Your task to perform on an android device: toggle translation in the chrome app Image 0: 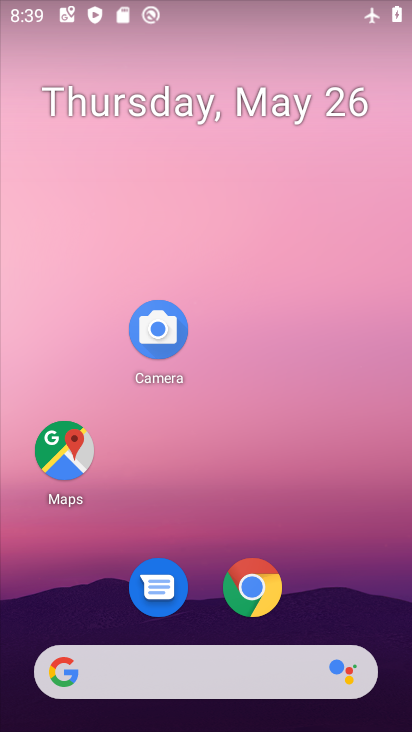
Step 0: click (252, 595)
Your task to perform on an android device: toggle translation in the chrome app Image 1: 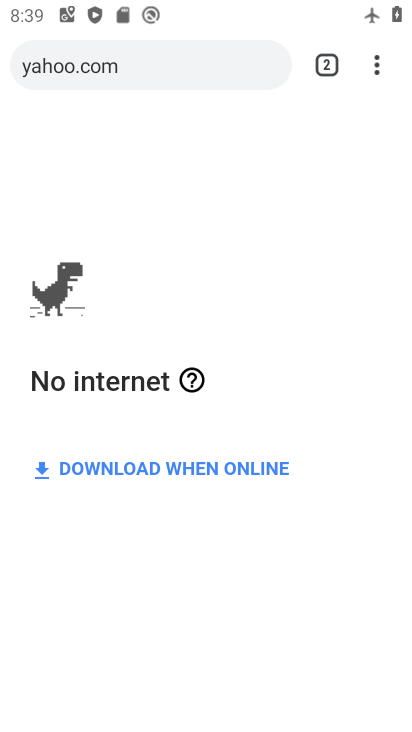
Step 1: drag from (372, 62) to (190, 644)
Your task to perform on an android device: toggle translation in the chrome app Image 2: 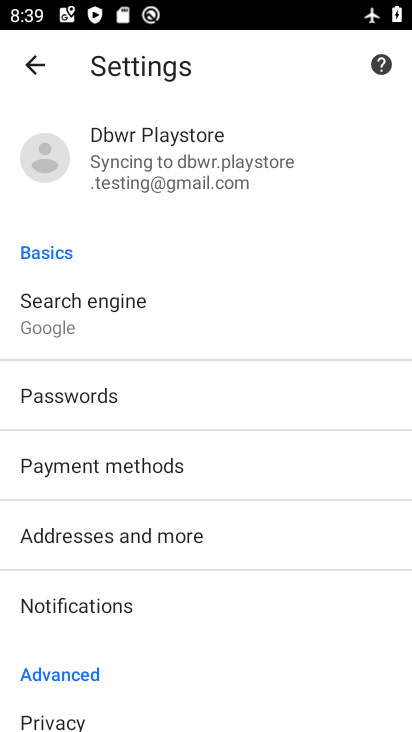
Step 2: drag from (190, 644) to (260, 392)
Your task to perform on an android device: toggle translation in the chrome app Image 3: 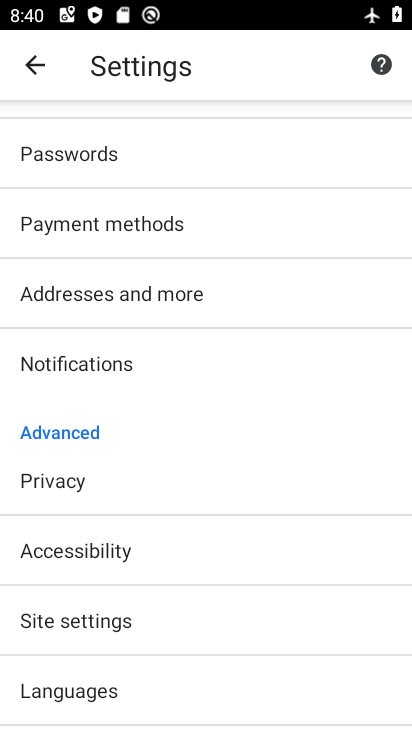
Step 3: click (141, 673)
Your task to perform on an android device: toggle translation in the chrome app Image 4: 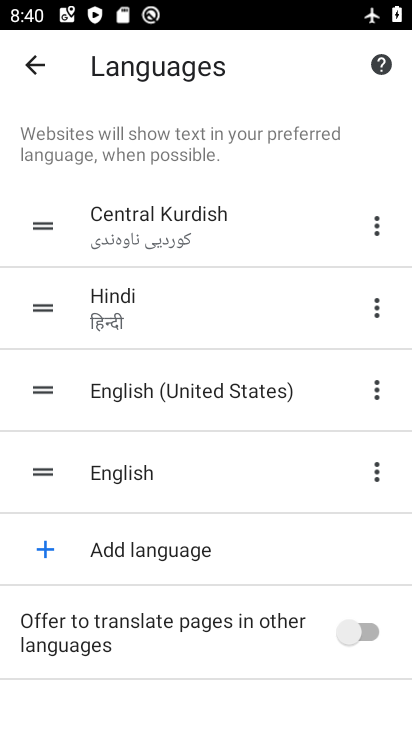
Step 4: click (375, 632)
Your task to perform on an android device: toggle translation in the chrome app Image 5: 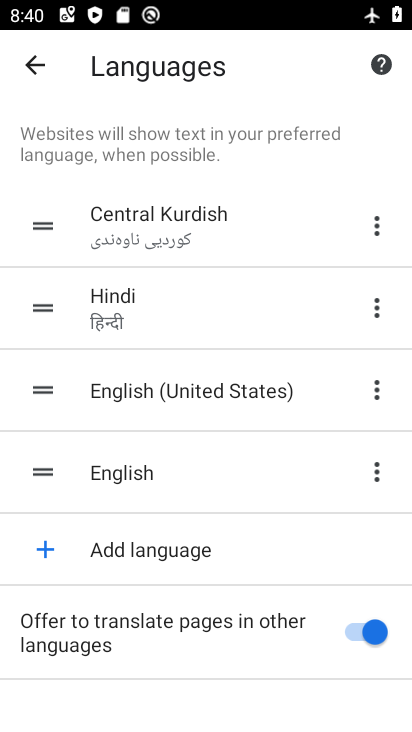
Step 5: click (368, 629)
Your task to perform on an android device: toggle translation in the chrome app Image 6: 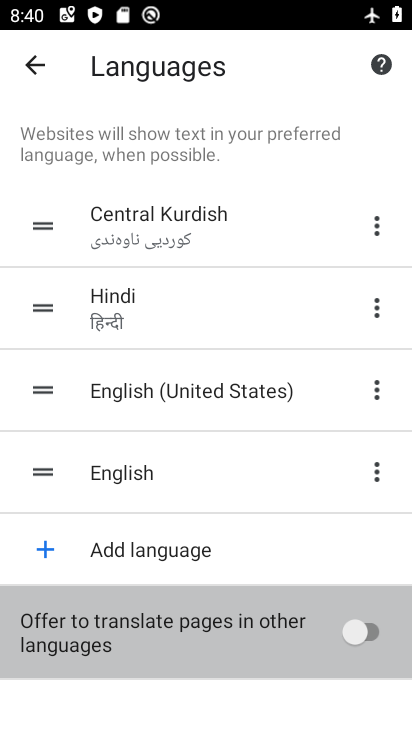
Step 6: task complete